Your task to perform on an android device: manage bookmarks in the chrome app Image 0: 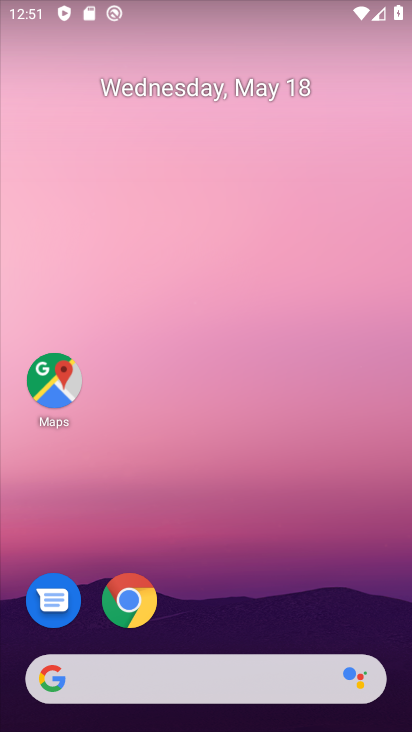
Step 0: click (131, 599)
Your task to perform on an android device: manage bookmarks in the chrome app Image 1: 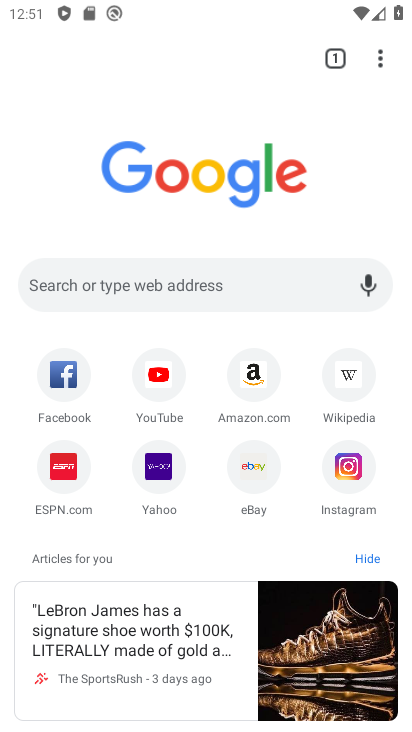
Step 1: click (380, 56)
Your task to perform on an android device: manage bookmarks in the chrome app Image 2: 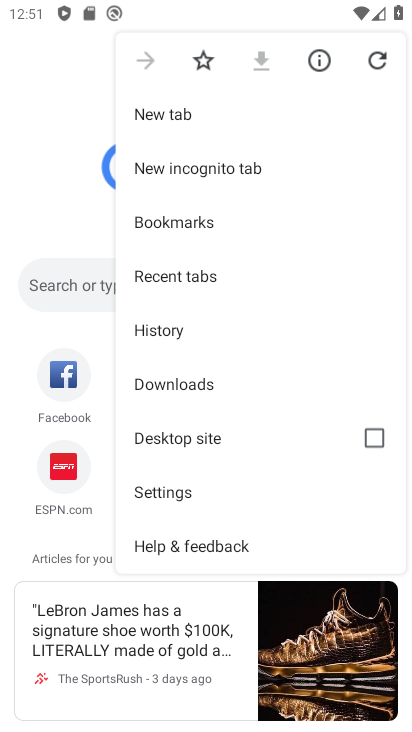
Step 2: click (180, 222)
Your task to perform on an android device: manage bookmarks in the chrome app Image 3: 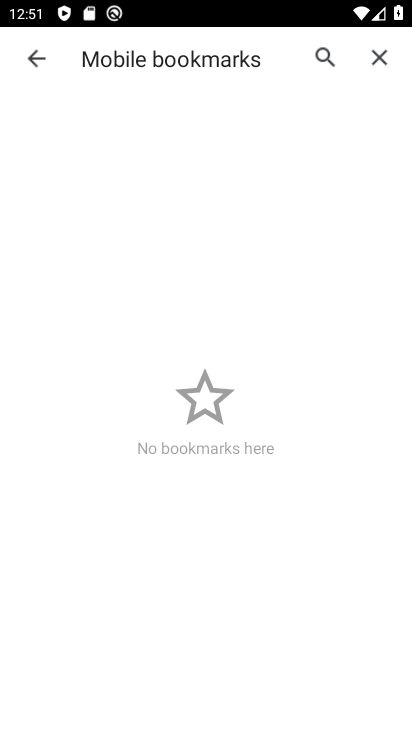
Step 3: task complete